Your task to perform on an android device: change alarm snooze length Image 0: 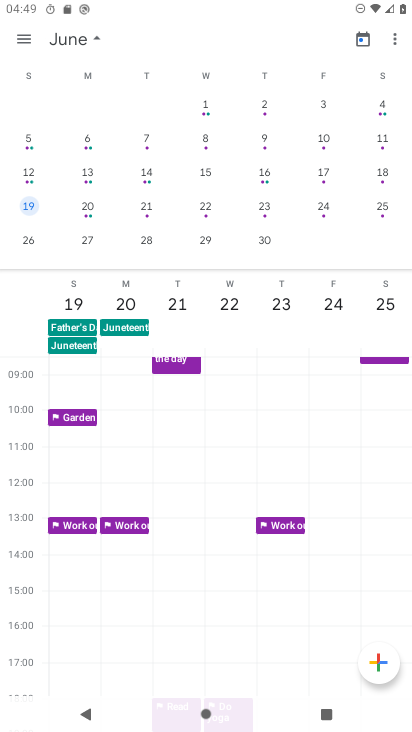
Step 0: press home button
Your task to perform on an android device: change alarm snooze length Image 1: 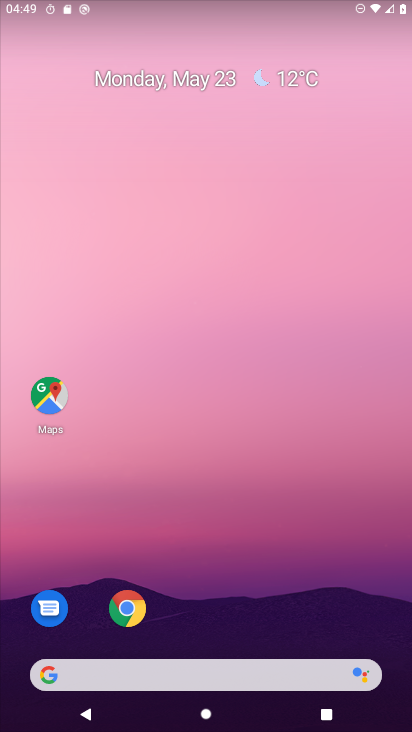
Step 1: drag from (303, 553) to (206, 38)
Your task to perform on an android device: change alarm snooze length Image 2: 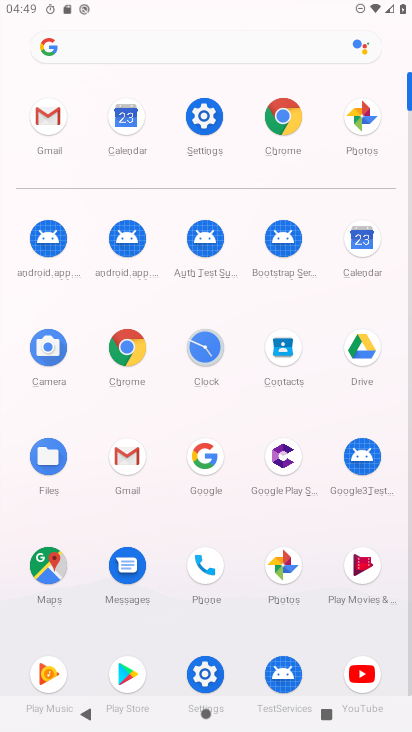
Step 2: click (215, 344)
Your task to perform on an android device: change alarm snooze length Image 3: 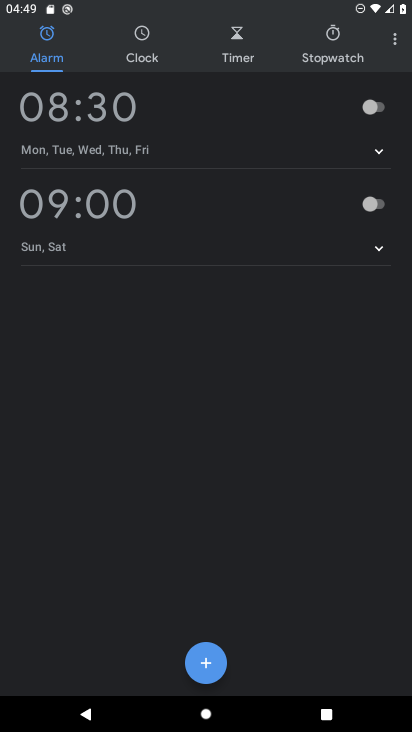
Step 3: click (383, 39)
Your task to perform on an android device: change alarm snooze length Image 4: 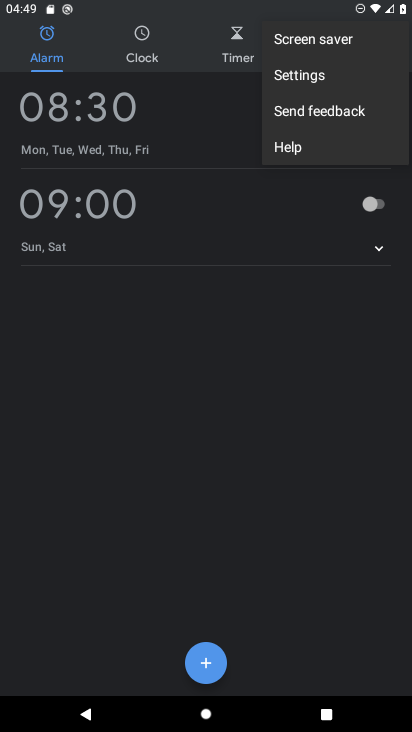
Step 4: click (307, 82)
Your task to perform on an android device: change alarm snooze length Image 5: 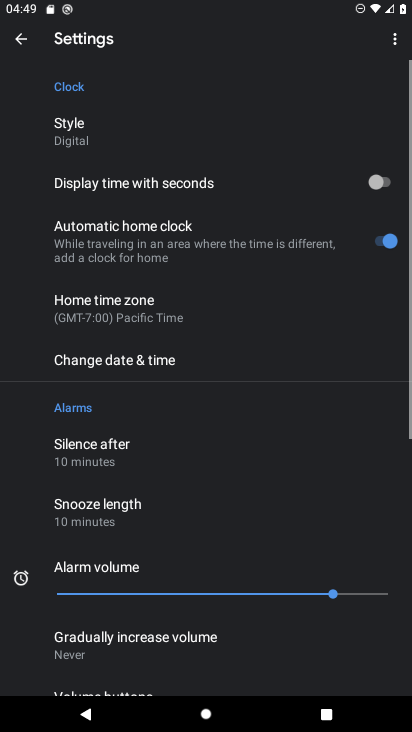
Step 5: click (159, 512)
Your task to perform on an android device: change alarm snooze length Image 6: 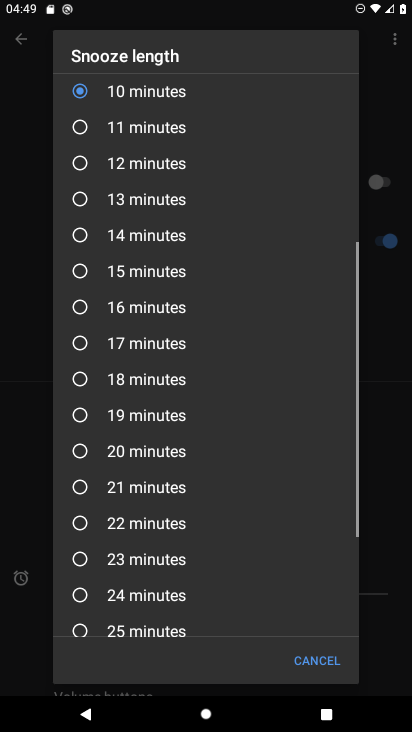
Step 6: click (139, 161)
Your task to perform on an android device: change alarm snooze length Image 7: 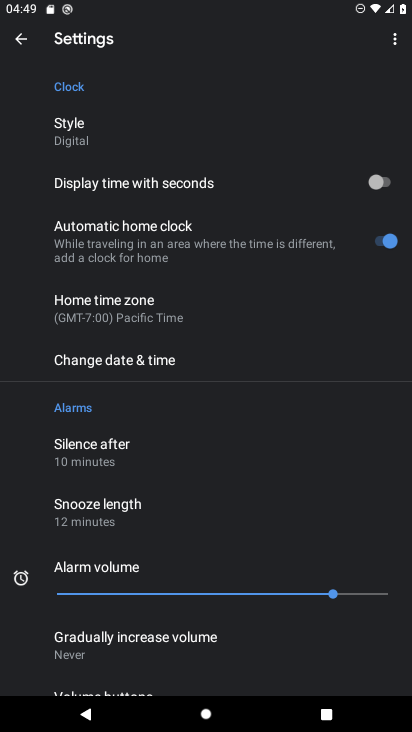
Step 7: task complete